Your task to perform on an android device: Show me popular videos on Youtube Image 0: 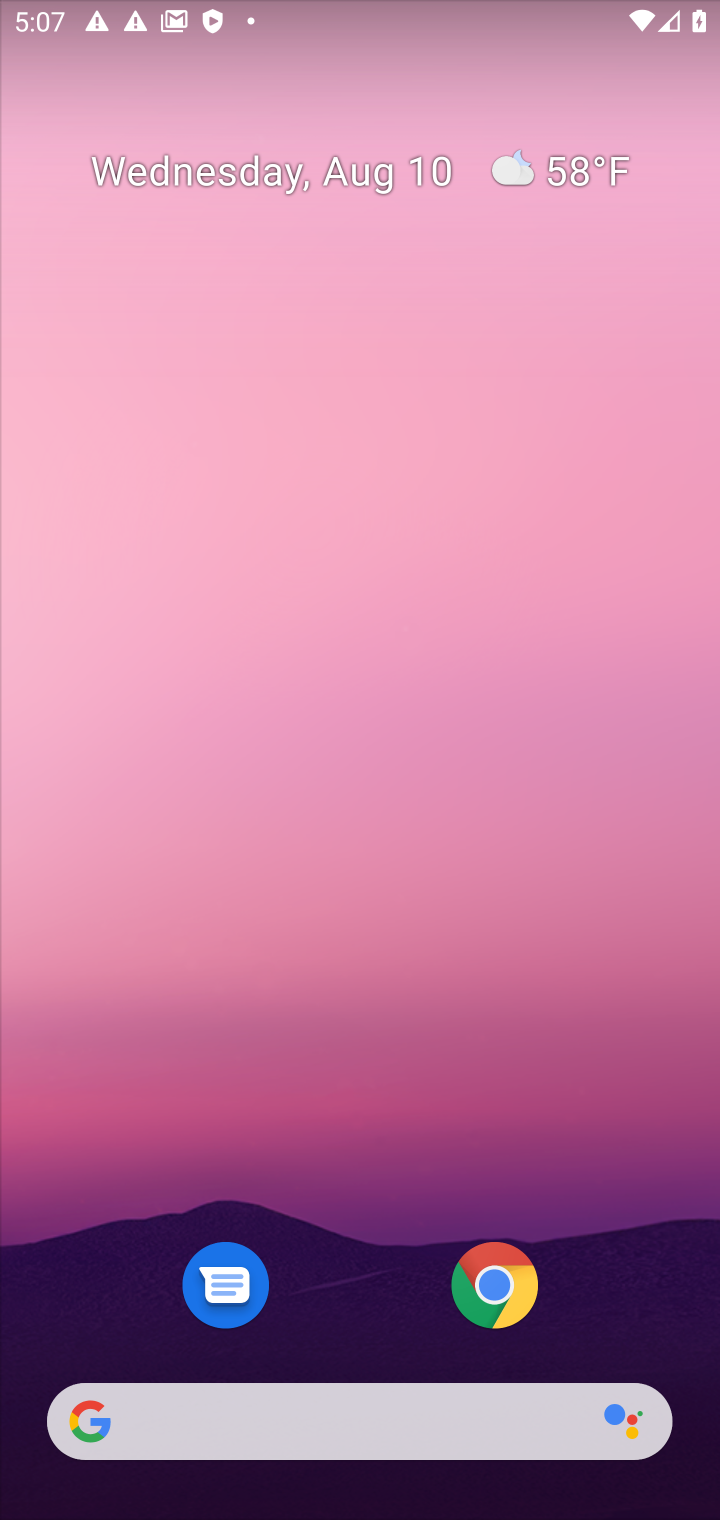
Step 0: drag from (280, 966) to (147, 18)
Your task to perform on an android device: Show me popular videos on Youtube Image 1: 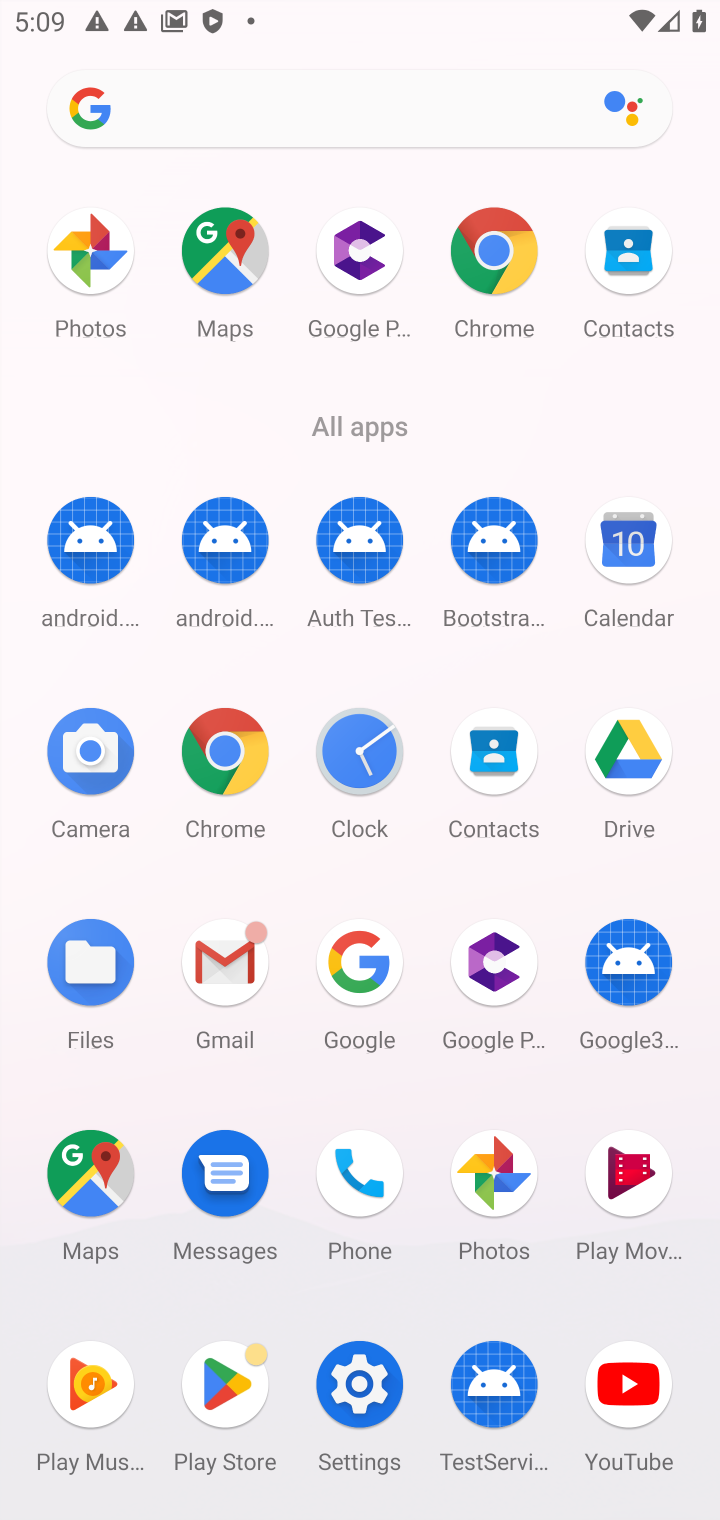
Step 1: click (607, 1433)
Your task to perform on an android device: Show me popular videos on Youtube Image 2: 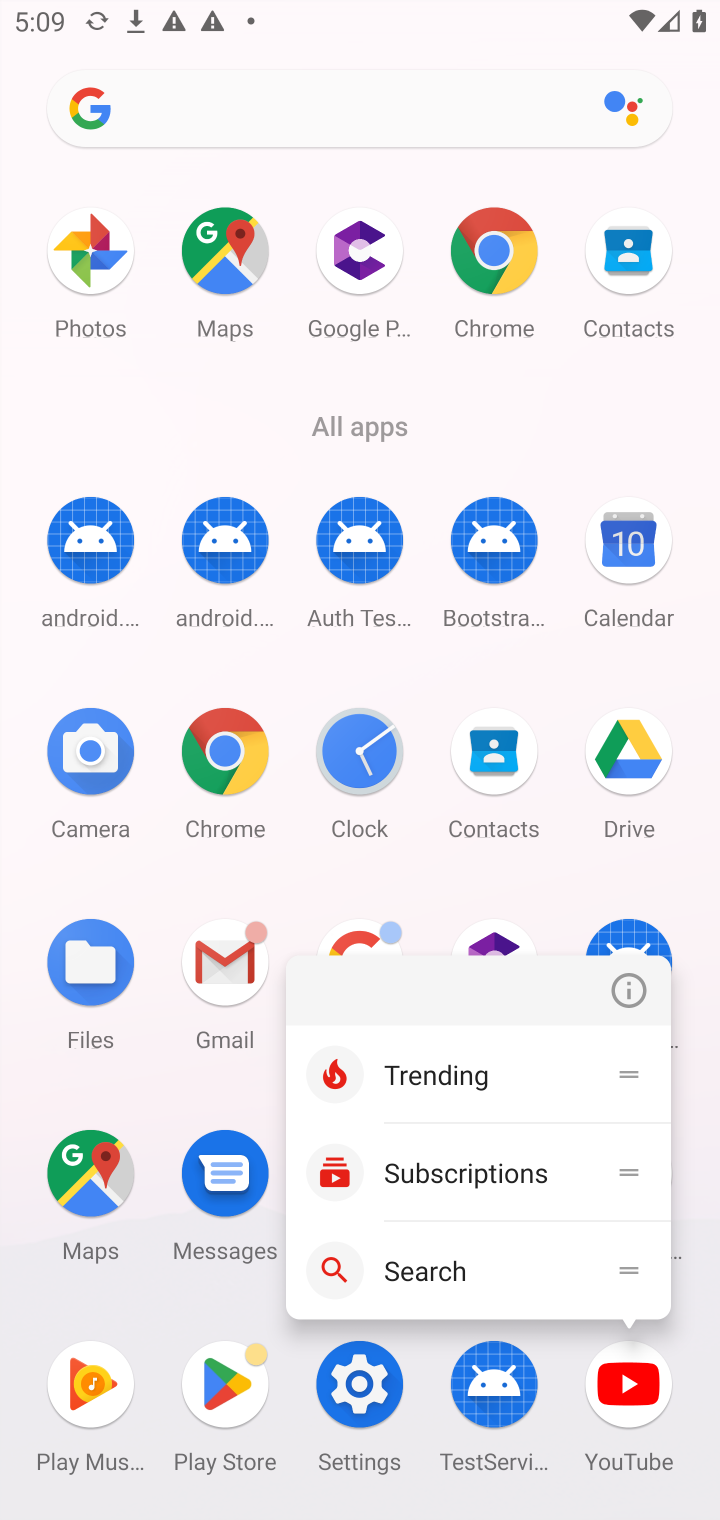
Step 2: click (637, 1416)
Your task to perform on an android device: Show me popular videos on Youtube Image 3: 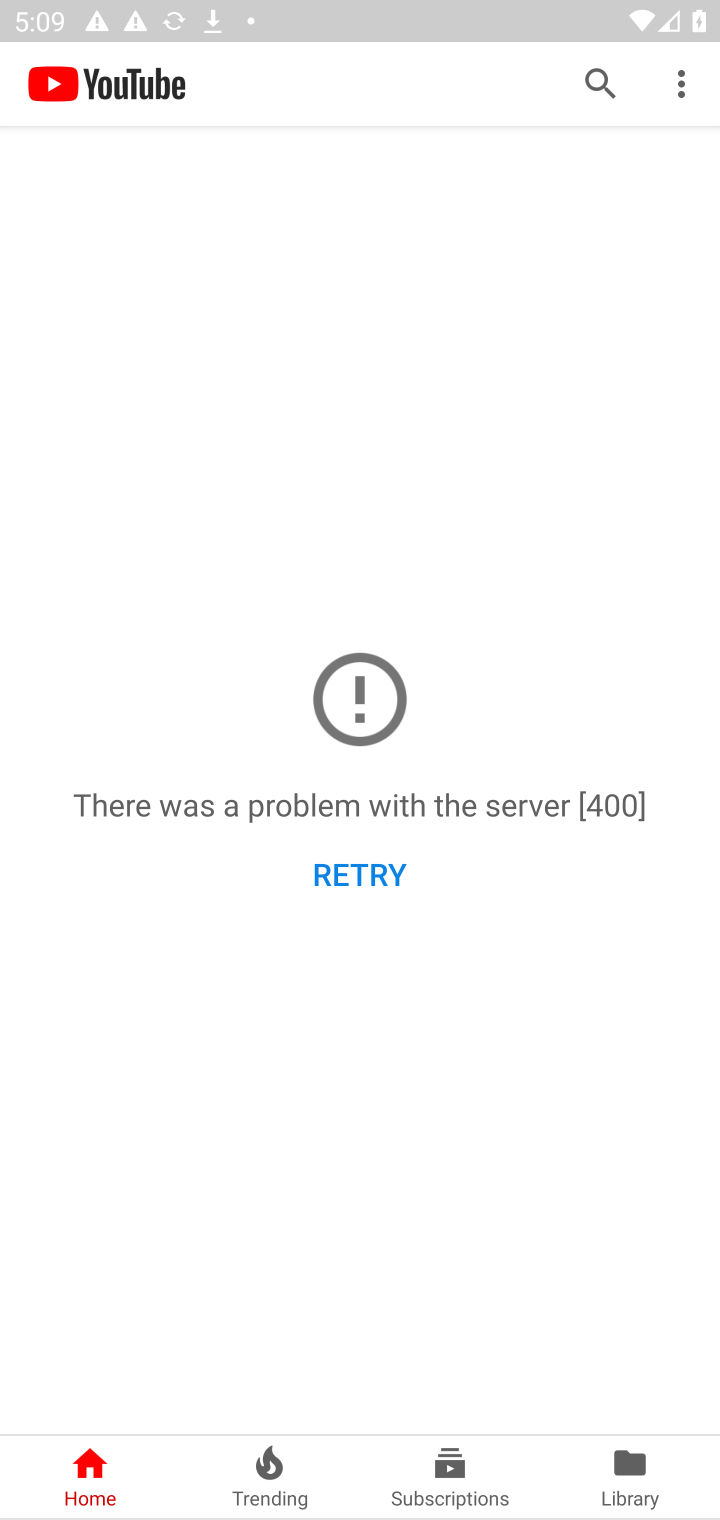
Step 3: click (585, 78)
Your task to perform on an android device: Show me popular videos on Youtube Image 4: 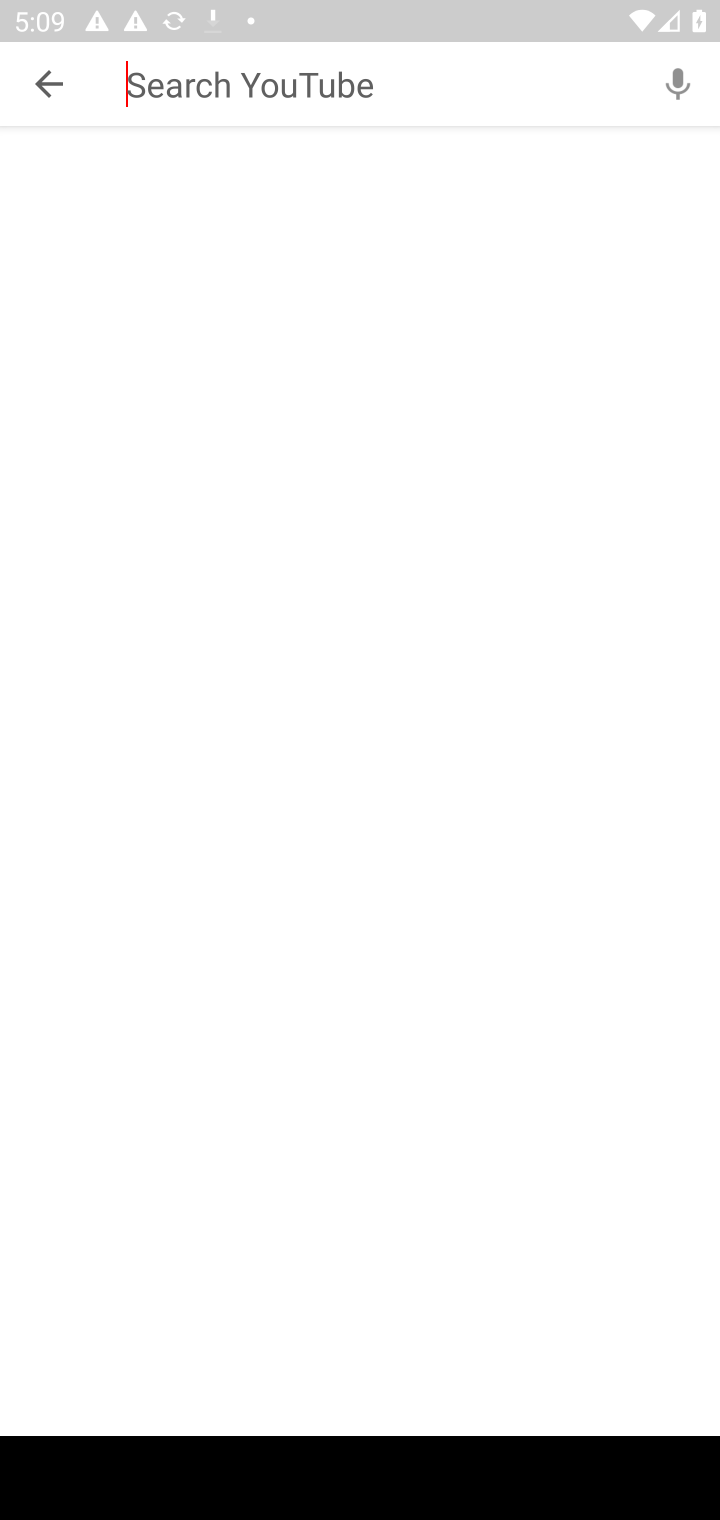
Step 4: type " popular videos "
Your task to perform on an android device: Show me popular videos on Youtube Image 5: 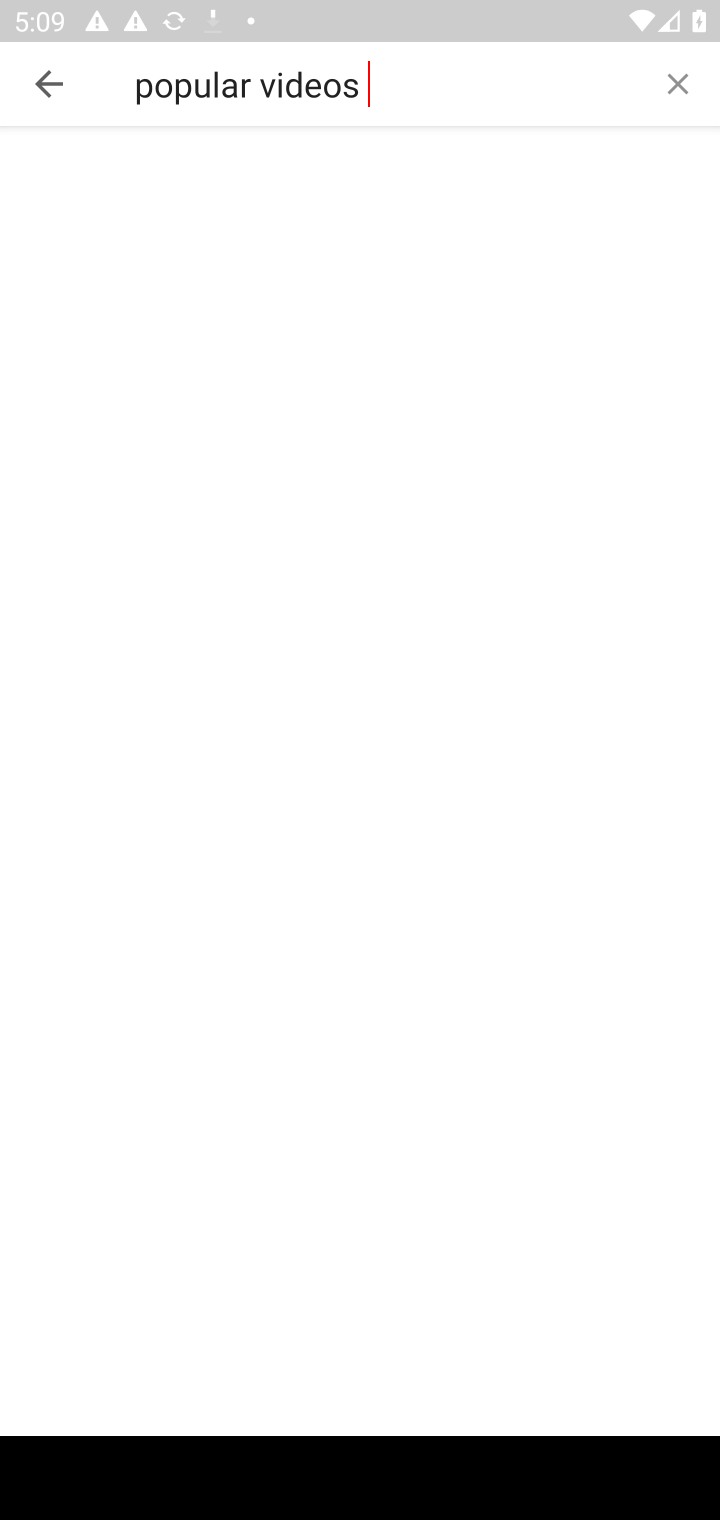
Step 5: type ""
Your task to perform on an android device: Show me popular videos on Youtube Image 6: 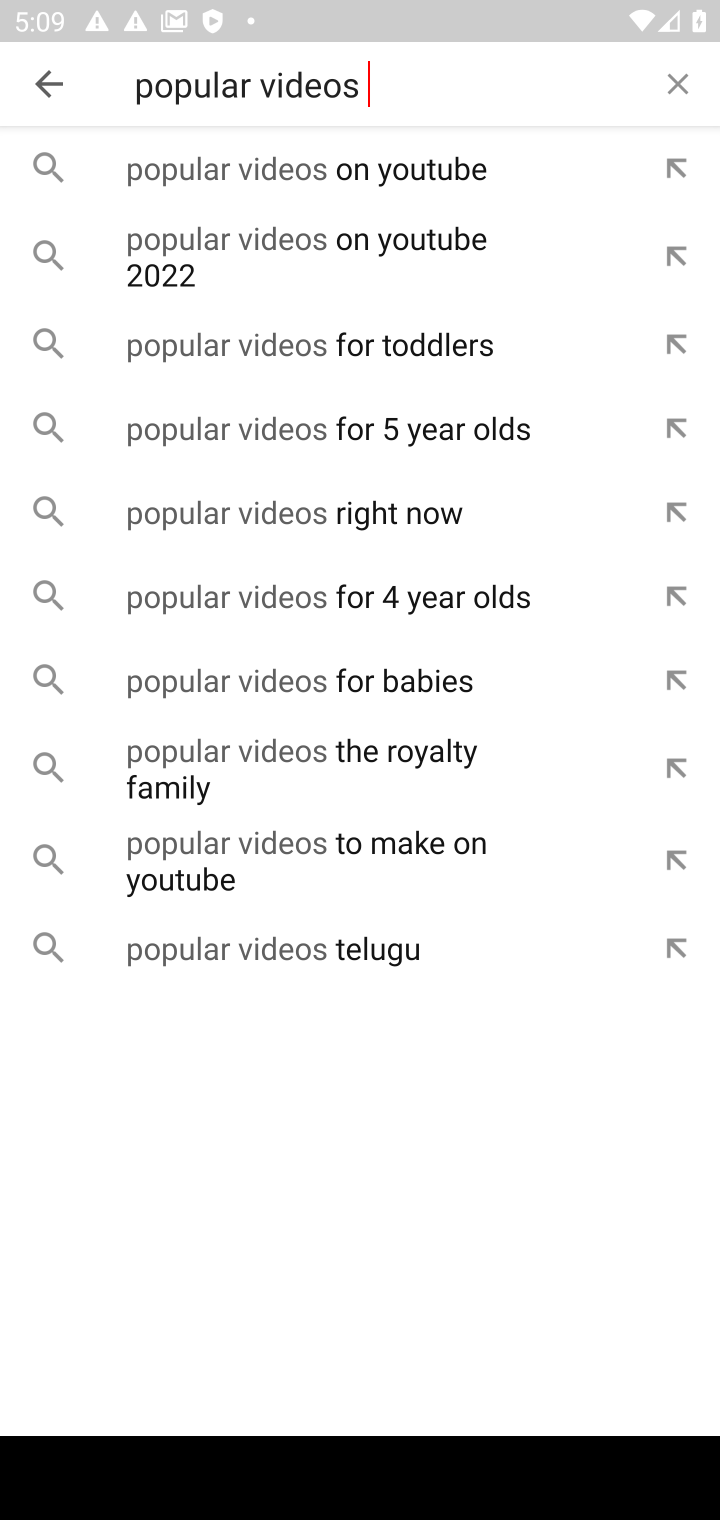
Step 6: click (306, 172)
Your task to perform on an android device: Show me popular videos on Youtube Image 7: 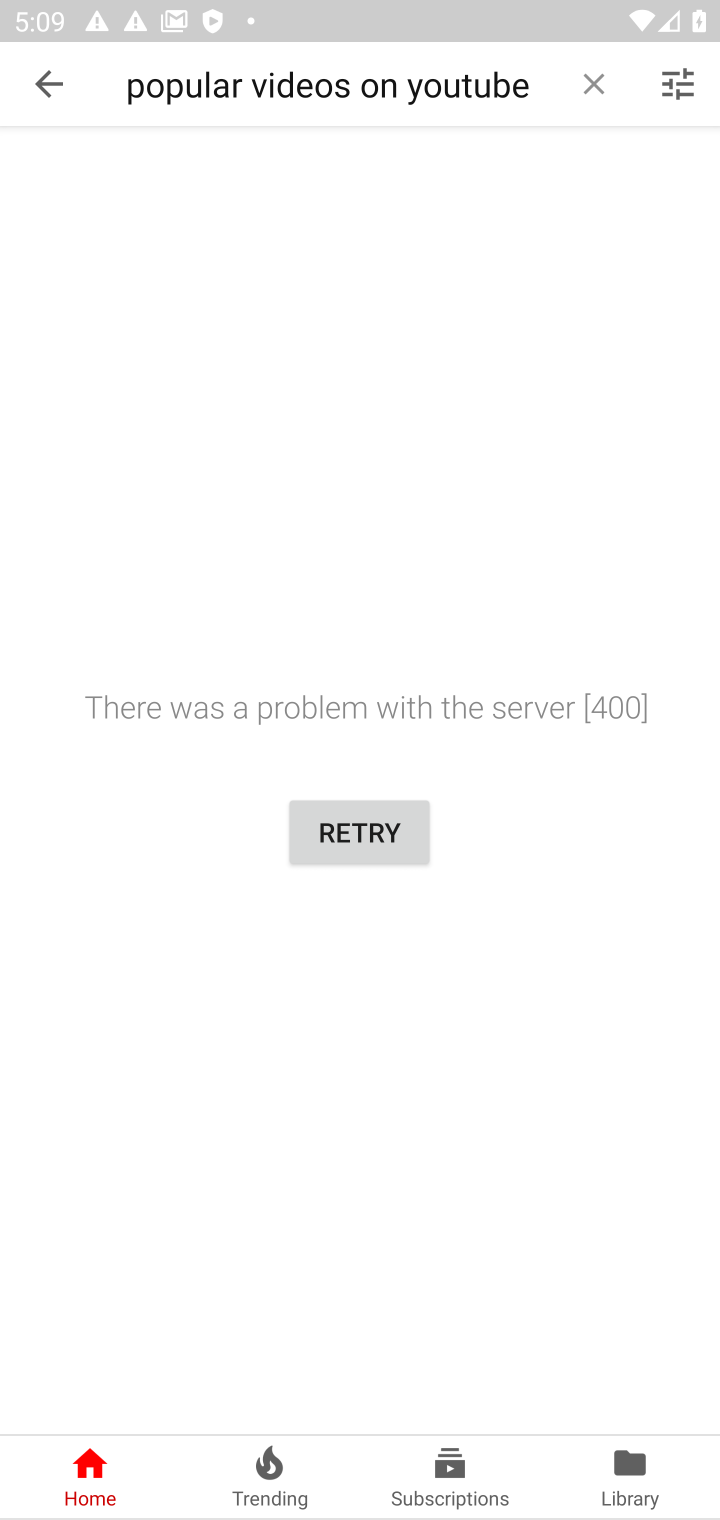
Step 7: task complete